Your task to perform on an android device: See recent photos Image 0: 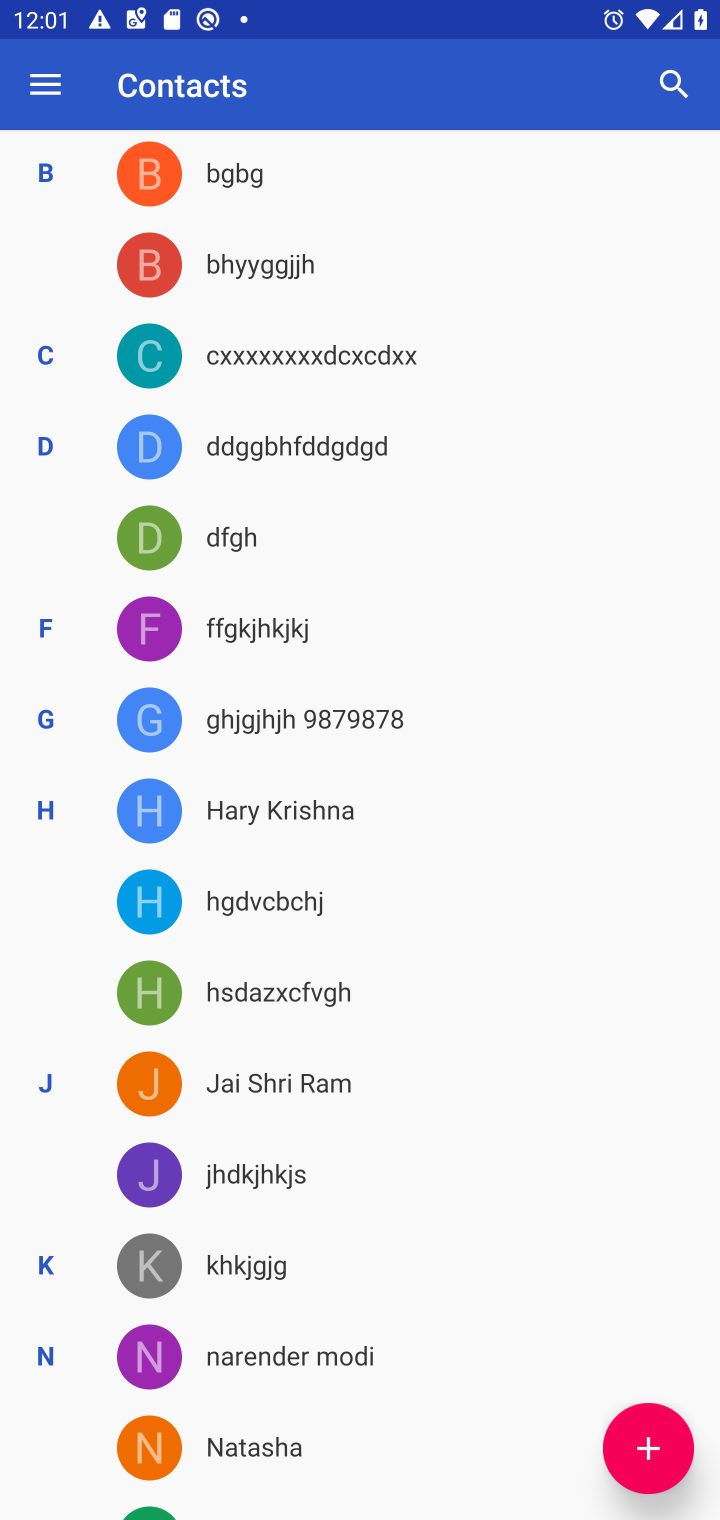
Step 0: press home button
Your task to perform on an android device: See recent photos Image 1: 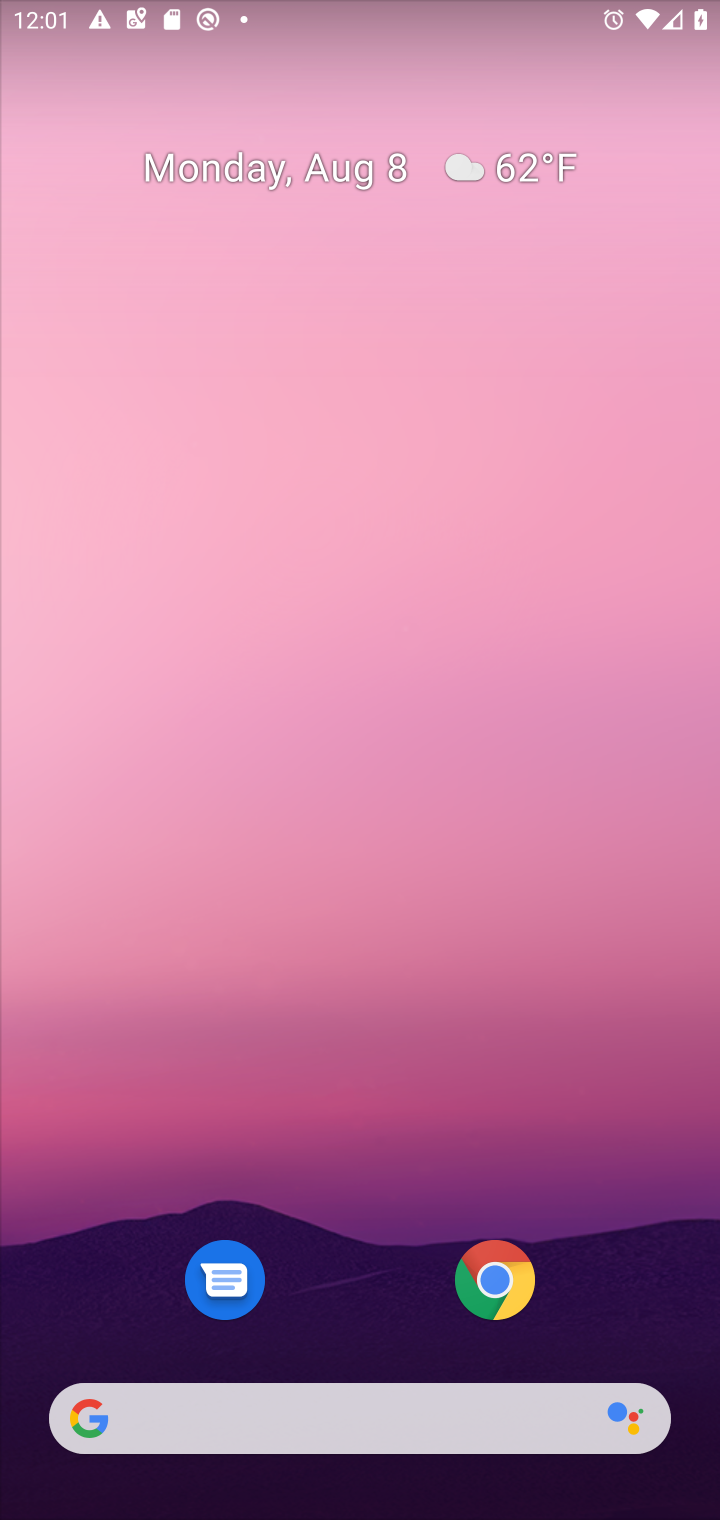
Step 1: drag from (314, 1107) to (289, 213)
Your task to perform on an android device: See recent photos Image 2: 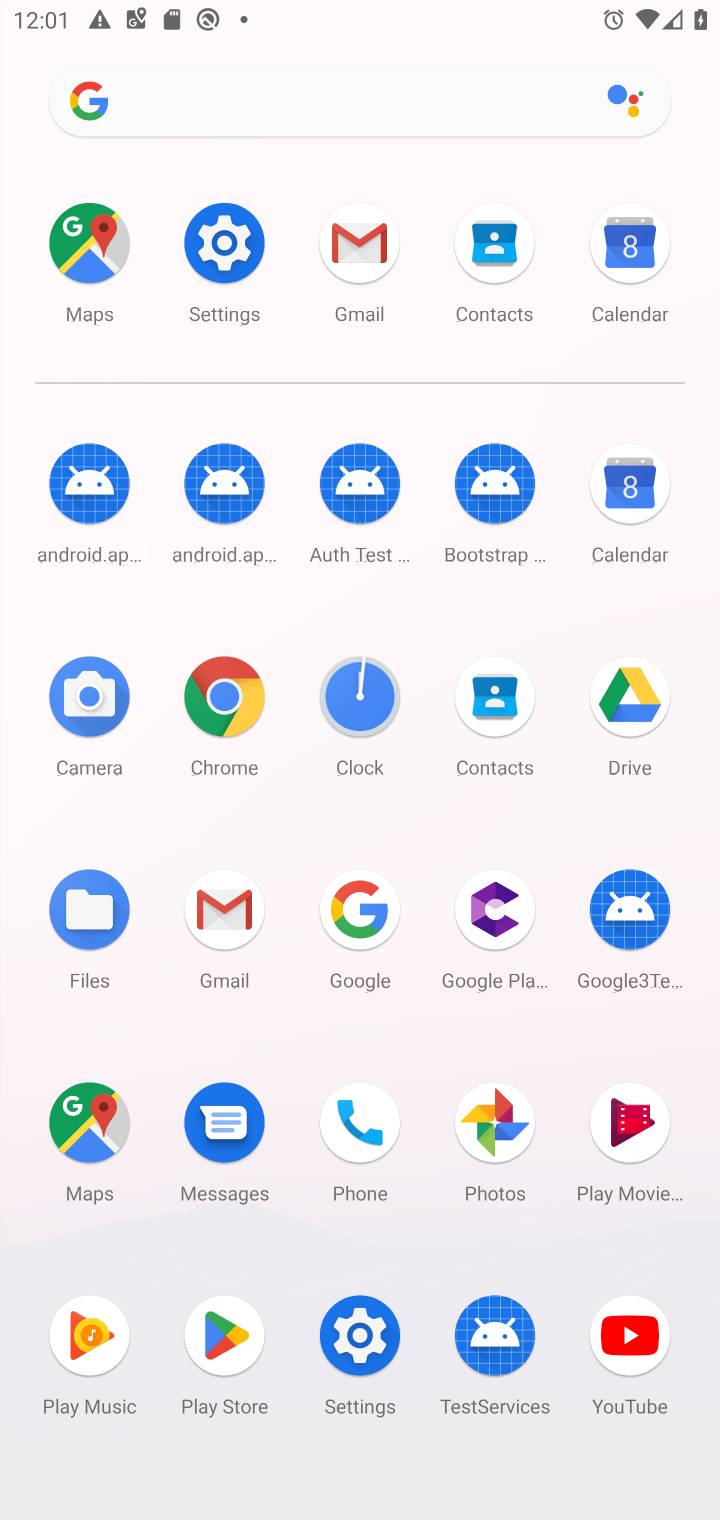
Step 2: click (494, 1123)
Your task to perform on an android device: See recent photos Image 3: 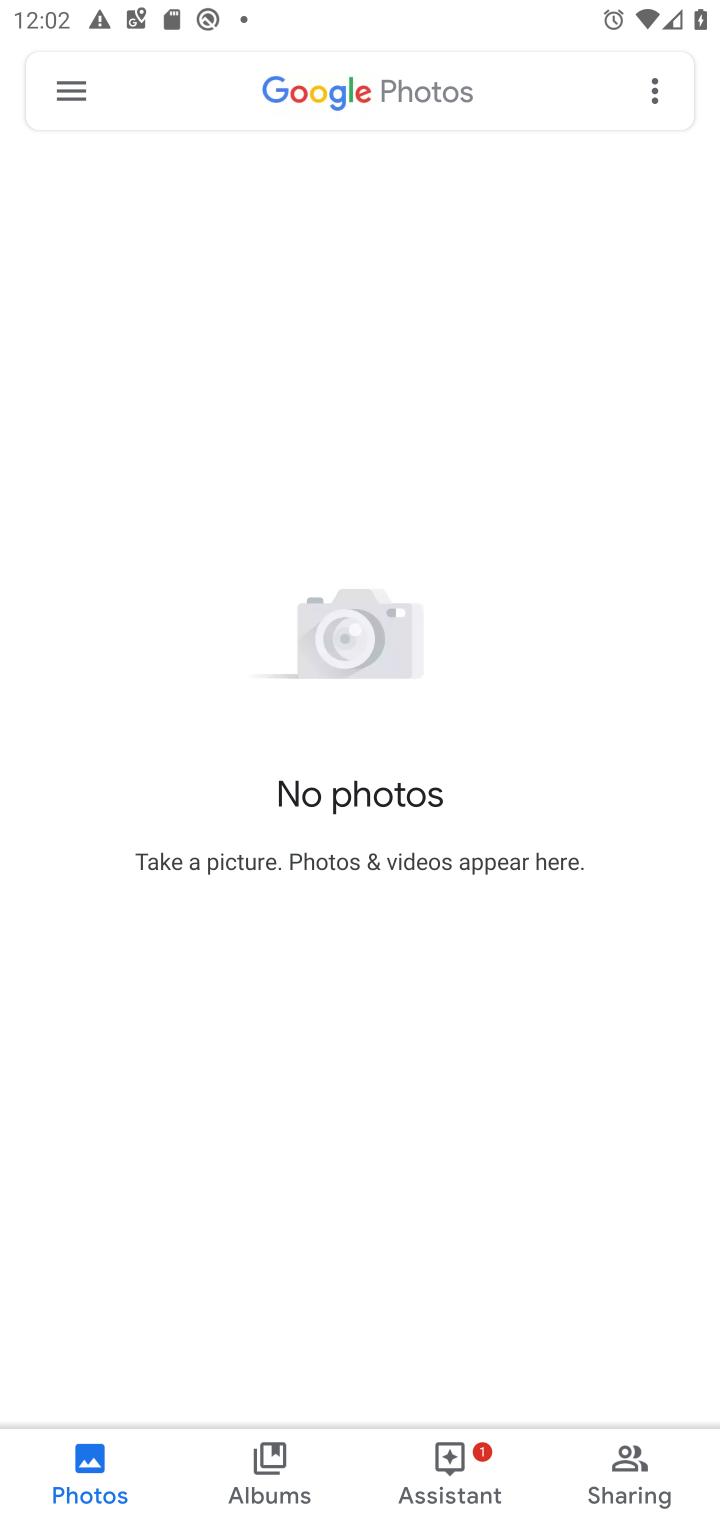
Step 3: click (83, 1453)
Your task to perform on an android device: See recent photos Image 4: 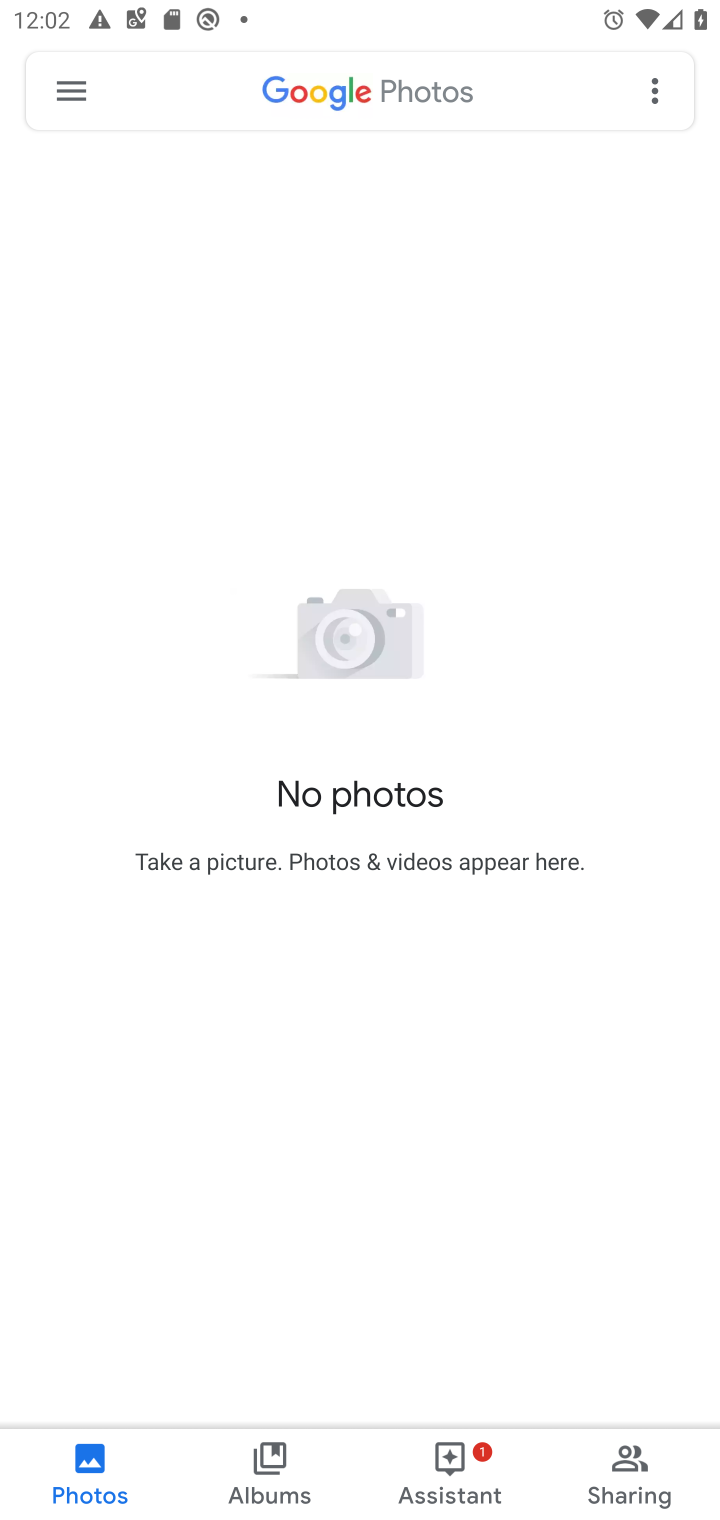
Step 4: task complete